Your task to perform on an android device: add a contact Image 0: 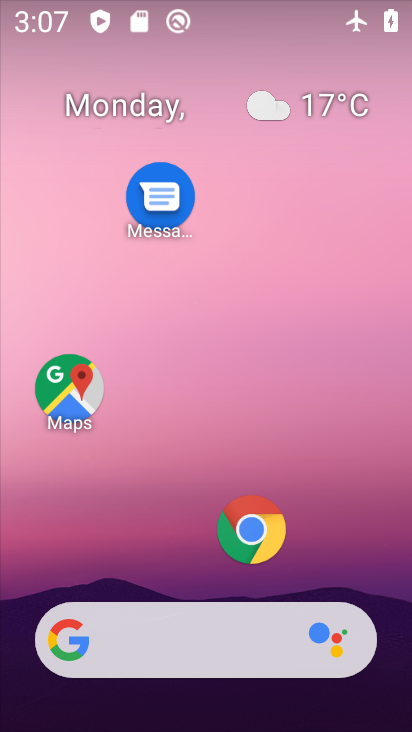
Step 0: press home button
Your task to perform on an android device: add a contact Image 1: 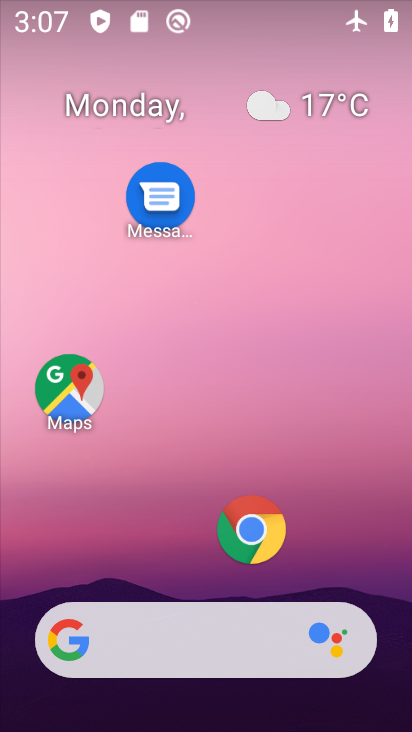
Step 1: click (213, 578)
Your task to perform on an android device: add a contact Image 2: 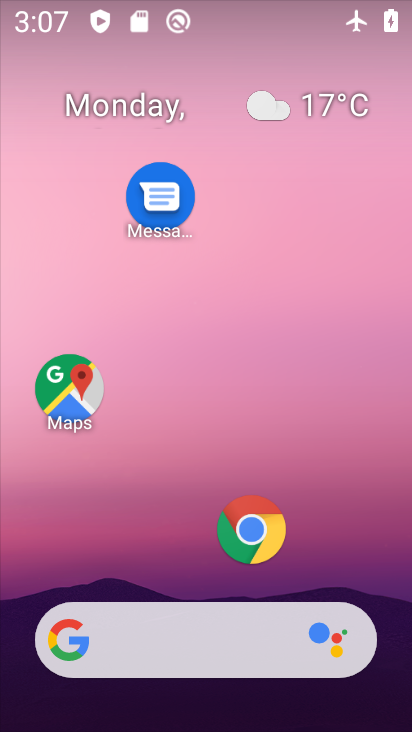
Step 2: drag from (227, 550) to (280, 129)
Your task to perform on an android device: add a contact Image 3: 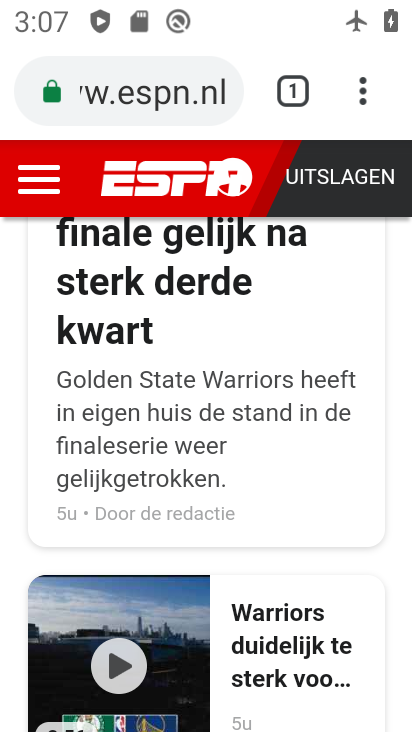
Step 3: press home button
Your task to perform on an android device: add a contact Image 4: 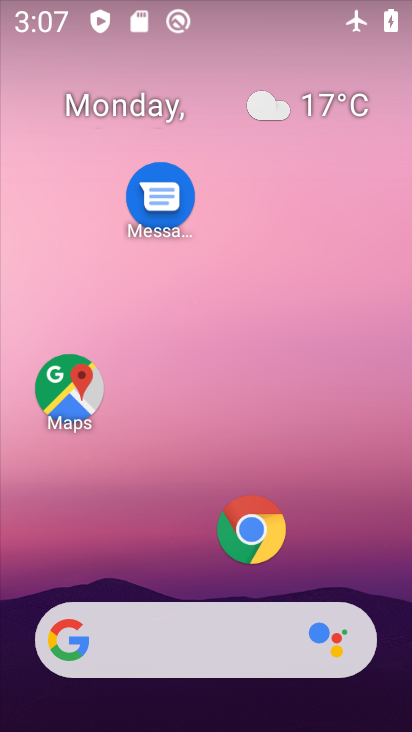
Step 4: drag from (196, 586) to (257, 93)
Your task to perform on an android device: add a contact Image 5: 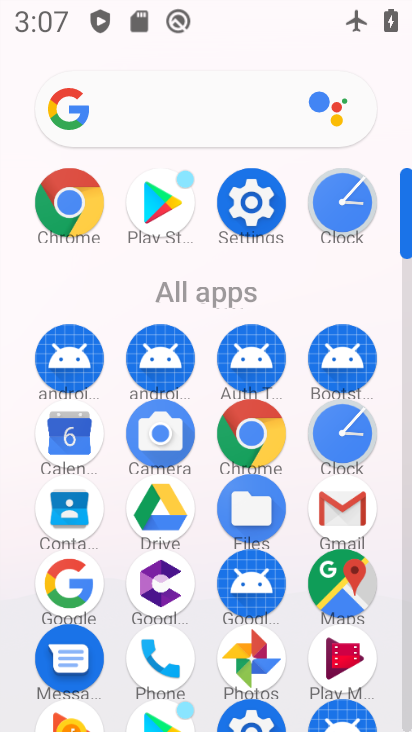
Step 5: click (67, 502)
Your task to perform on an android device: add a contact Image 6: 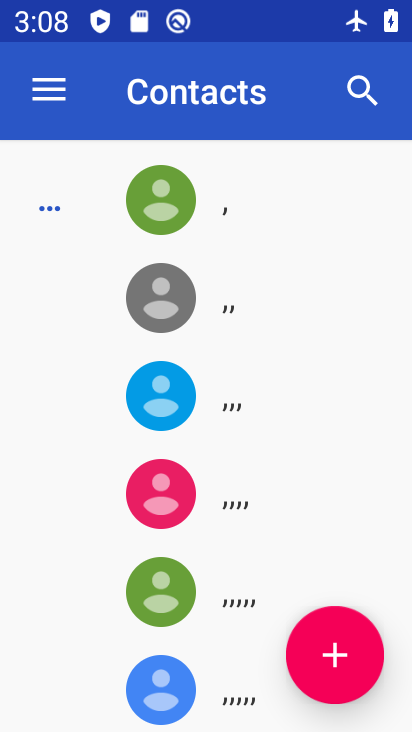
Step 6: click (335, 641)
Your task to perform on an android device: add a contact Image 7: 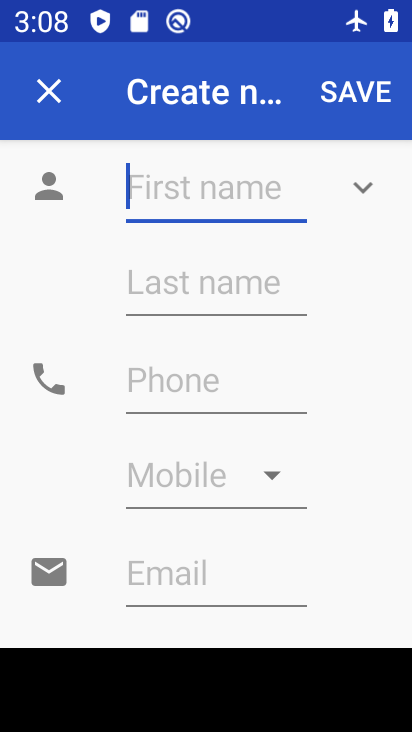
Step 7: type "vxfdhg"
Your task to perform on an android device: add a contact Image 8: 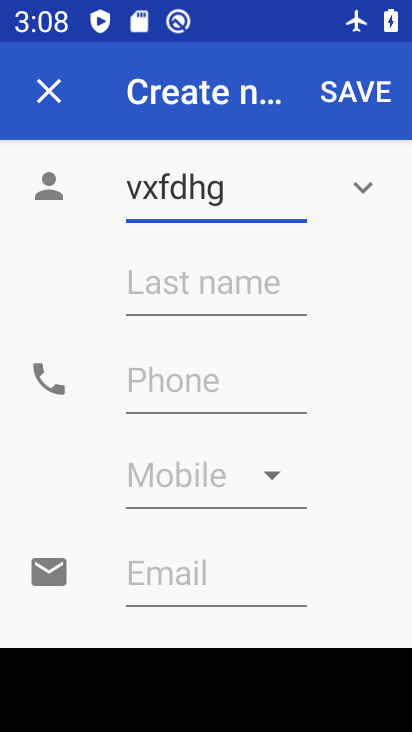
Step 8: click (368, 94)
Your task to perform on an android device: add a contact Image 9: 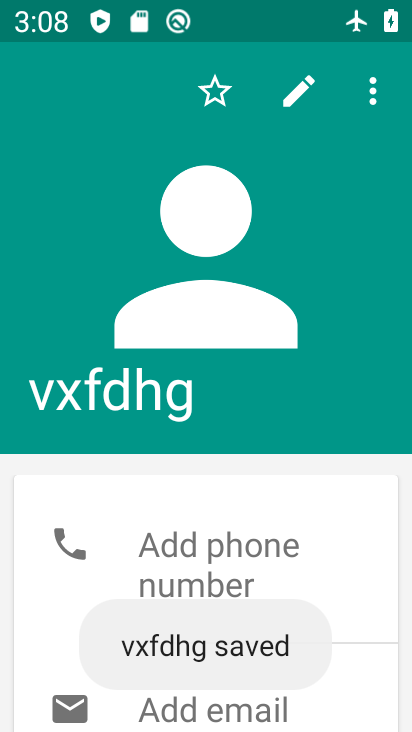
Step 9: task complete